Your task to perform on an android device: refresh tabs in the chrome app Image 0: 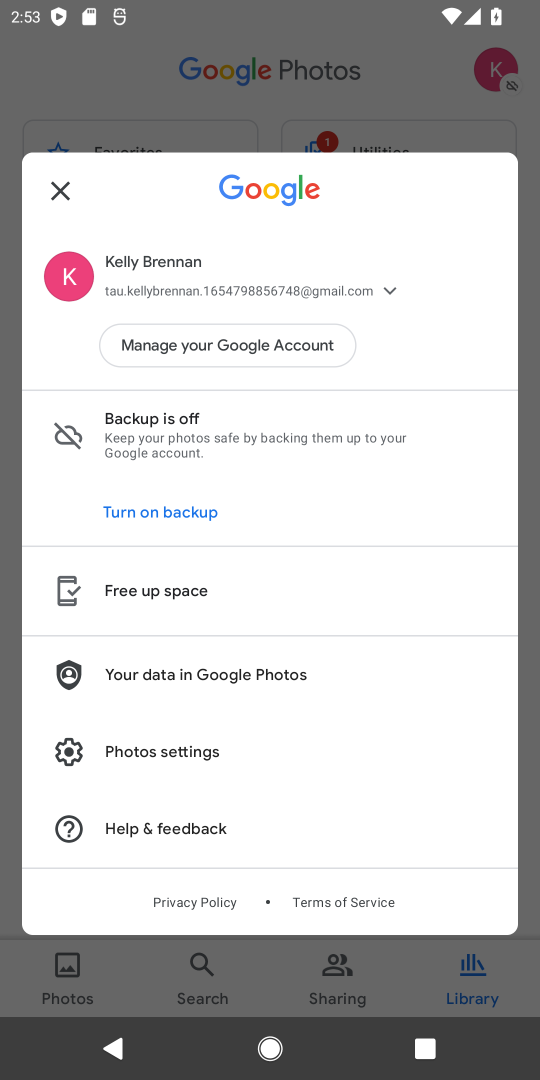
Step 0: press home button
Your task to perform on an android device: refresh tabs in the chrome app Image 1: 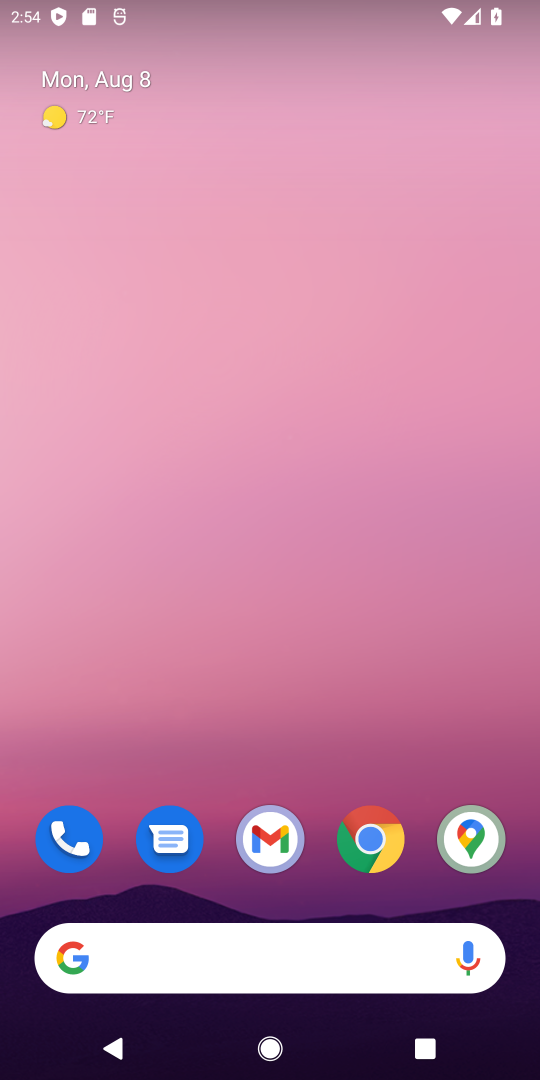
Step 1: drag from (399, 753) to (430, 256)
Your task to perform on an android device: refresh tabs in the chrome app Image 2: 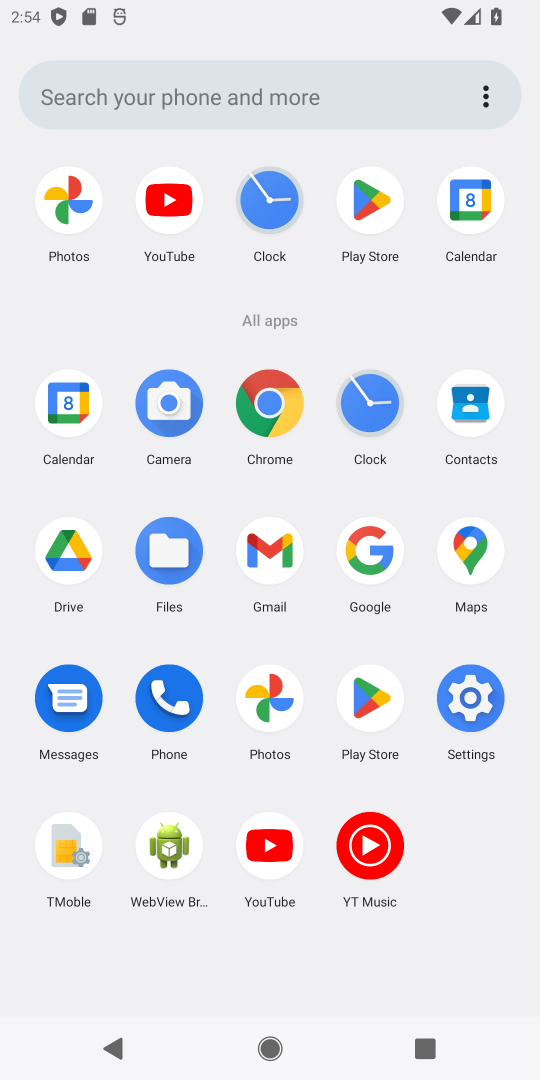
Step 2: click (267, 405)
Your task to perform on an android device: refresh tabs in the chrome app Image 3: 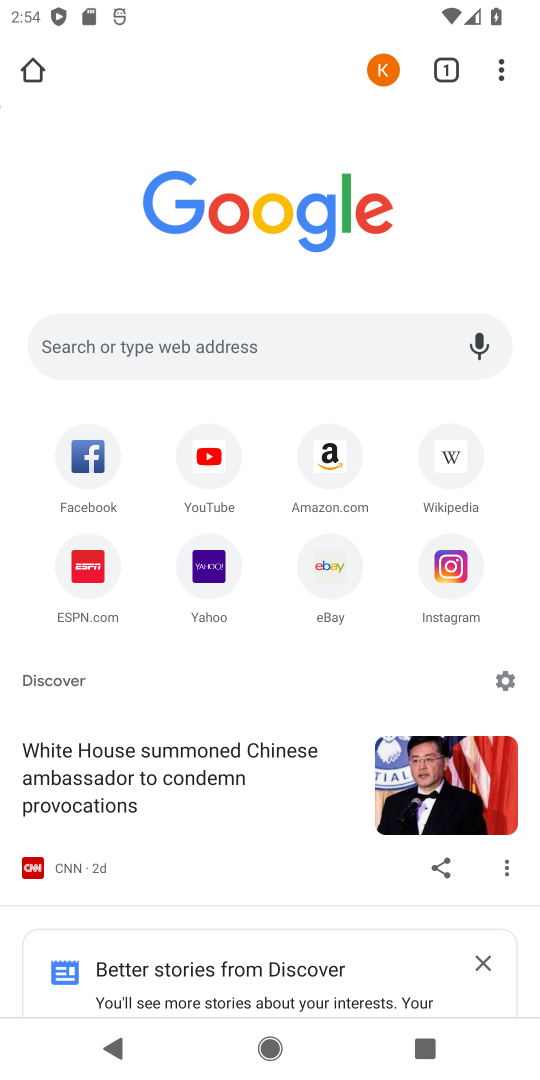
Step 3: click (500, 71)
Your task to perform on an android device: refresh tabs in the chrome app Image 4: 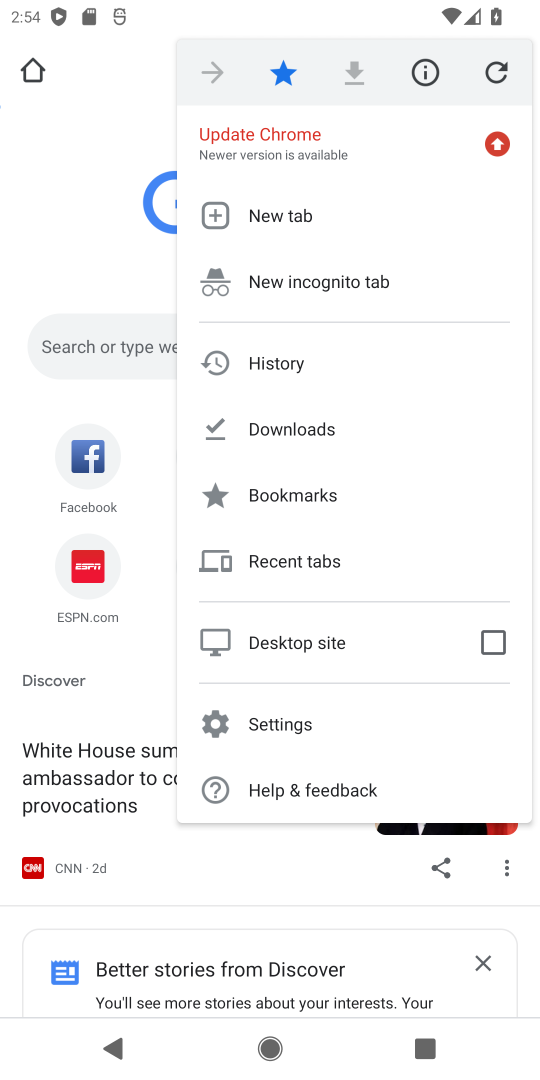
Step 4: click (500, 71)
Your task to perform on an android device: refresh tabs in the chrome app Image 5: 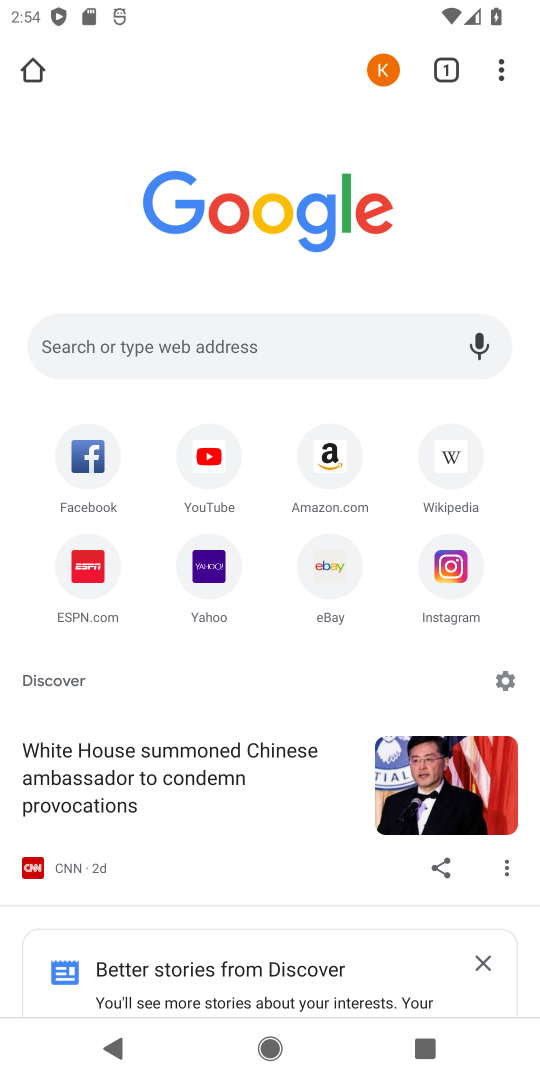
Step 5: task complete